Your task to perform on an android device: find photos in the google photos app Image 0: 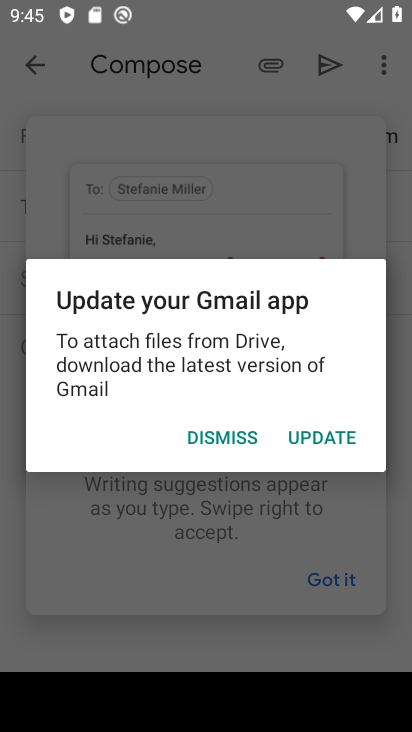
Step 0: press home button
Your task to perform on an android device: find photos in the google photos app Image 1: 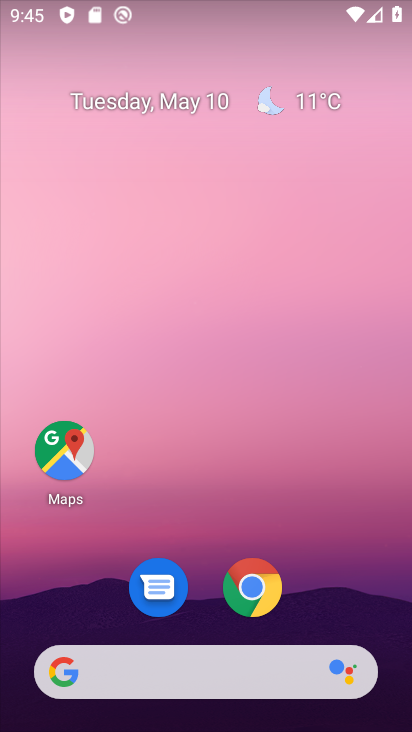
Step 1: drag from (217, 606) to (276, 104)
Your task to perform on an android device: find photos in the google photos app Image 2: 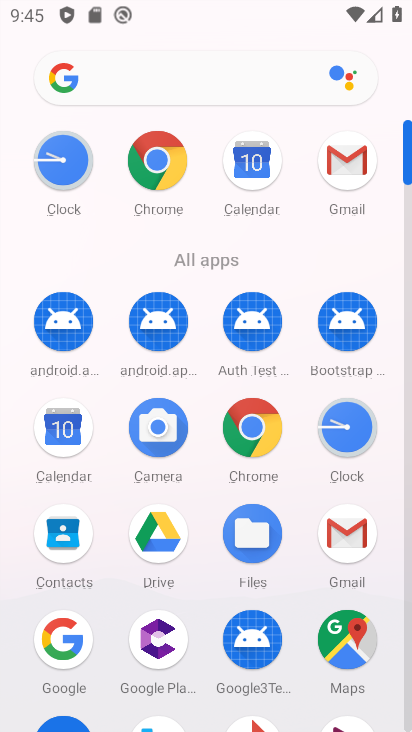
Step 2: drag from (208, 602) to (259, 237)
Your task to perform on an android device: find photos in the google photos app Image 3: 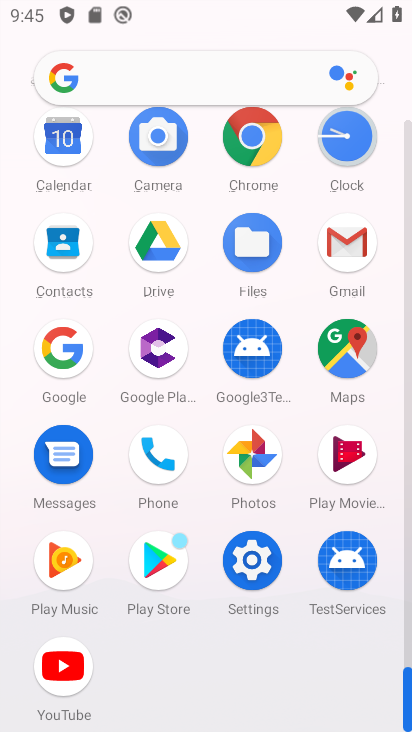
Step 3: click (254, 453)
Your task to perform on an android device: find photos in the google photos app Image 4: 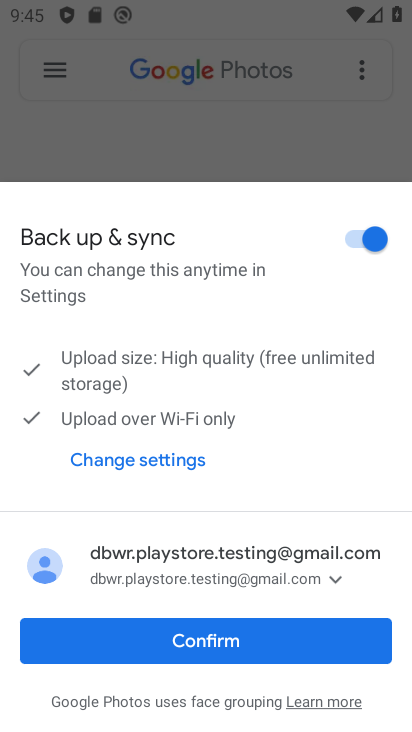
Step 4: click (240, 655)
Your task to perform on an android device: find photos in the google photos app Image 5: 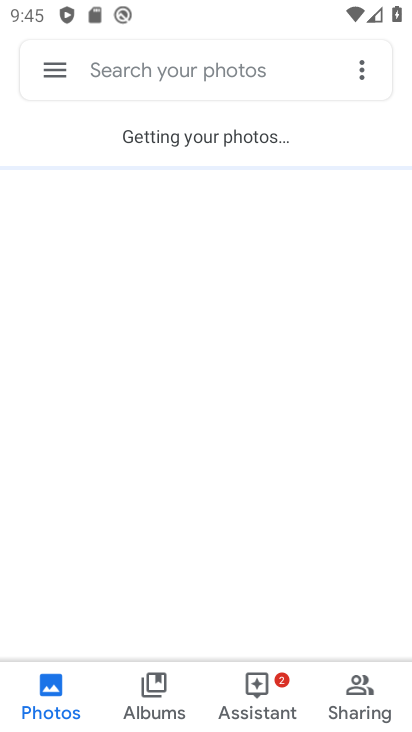
Step 5: click (201, 416)
Your task to perform on an android device: find photos in the google photos app Image 6: 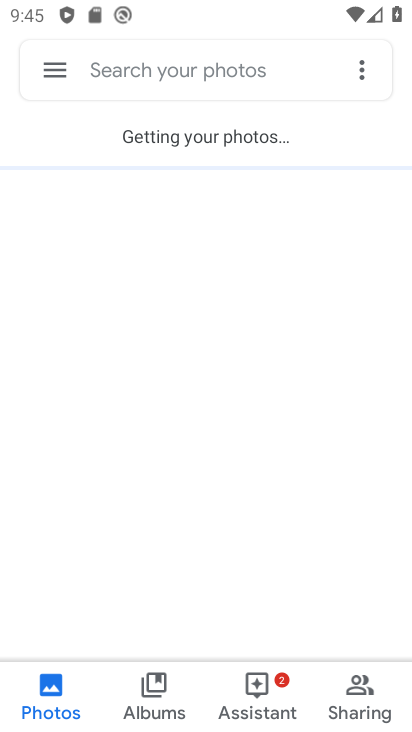
Step 6: click (352, 85)
Your task to perform on an android device: find photos in the google photos app Image 7: 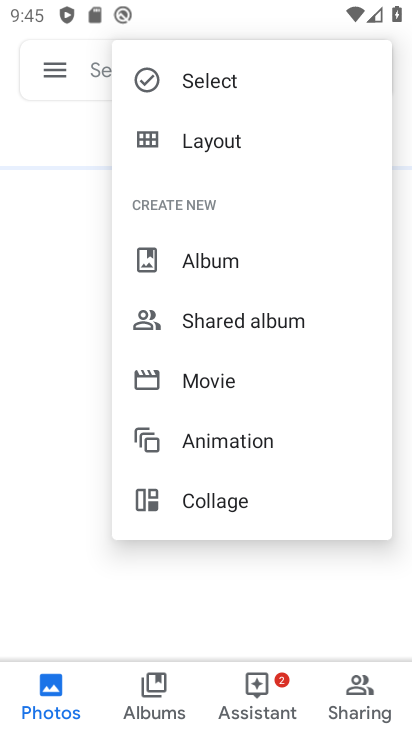
Step 7: click (242, 645)
Your task to perform on an android device: find photos in the google photos app Image 8: 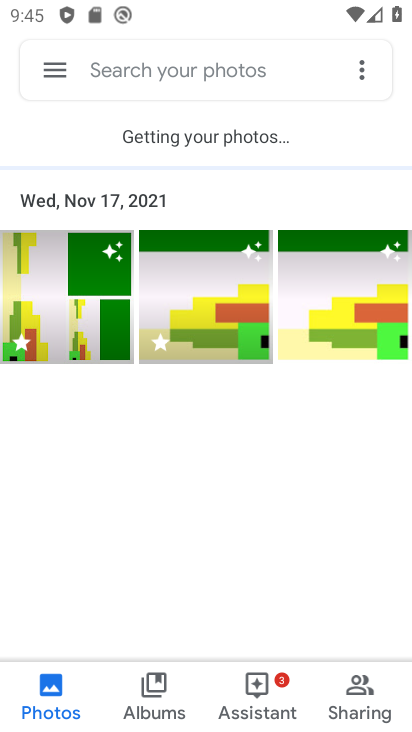
Step 8: task complete